Your task to perform on an android device: Toggle the flashlight Image 0: 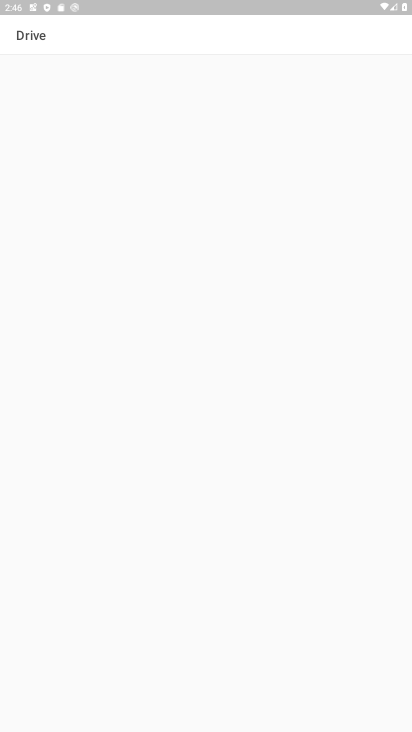
Step 0: press back button
Your task to perform on an android device: Toggle the flashlight Image 1: 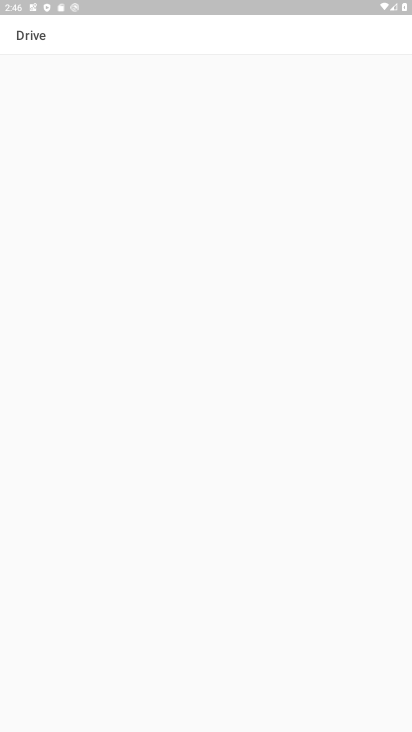
Step 1: click (145, 98)
Your task to perform on an android device: Toggle the flashlight Image 2: 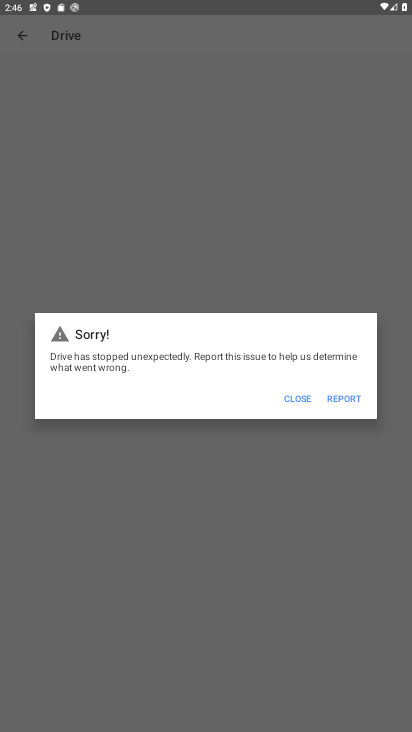
Step 2: click (290, 388)
Your task to perform on an android device: Toggle the flashlight Image 3: 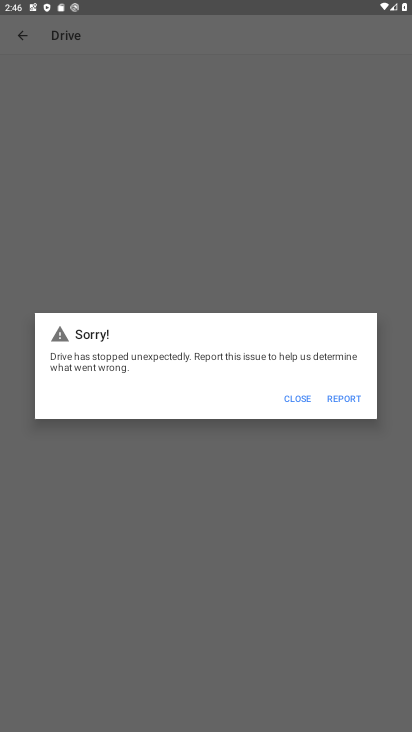
Step 3: click (294, 394)
Your task to perform on an android device: Toggle the flashlight Image 4: 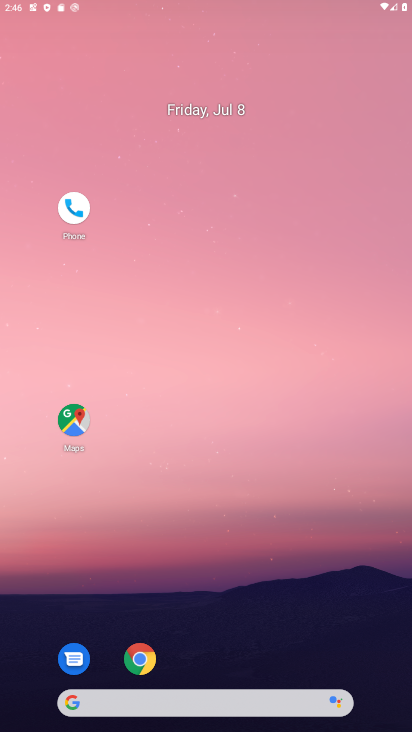
Step 4: click (208, 202)
Your task to perform on an android device: Toggle the flashlight Image 5: 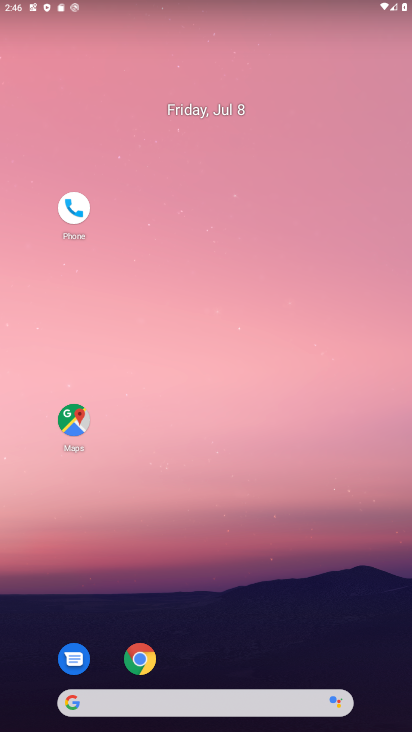
Step 5: task complete